Your task to perform on an android device: Open privacy settings Image 0: 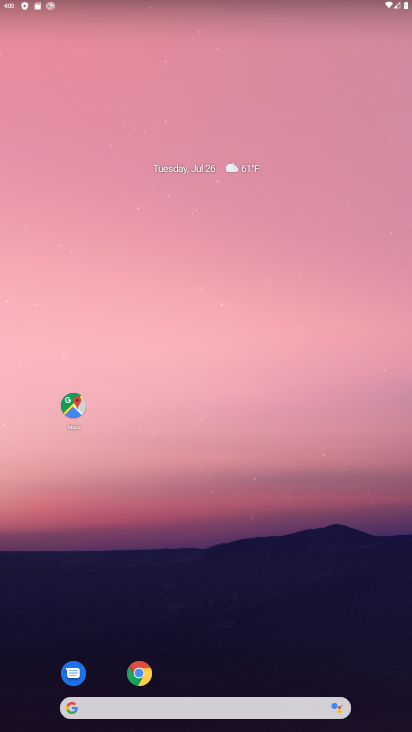
Step 0: press home button
Your task to perform on an android device: Open privacy settings Image 1: 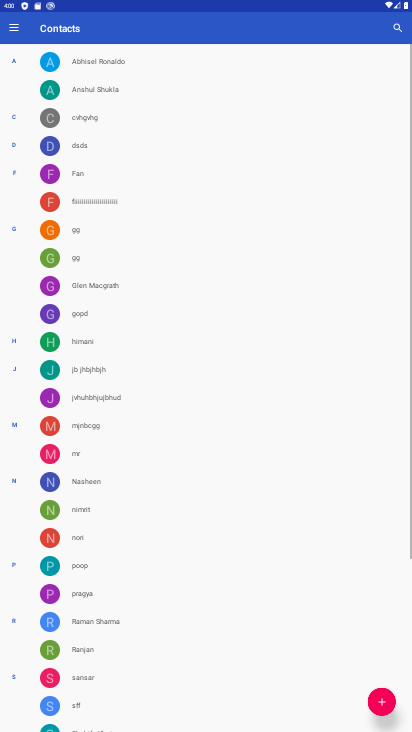
Step 1: click (136, 671)
Your task to perform on an android device: Open privacy settings Image 2: 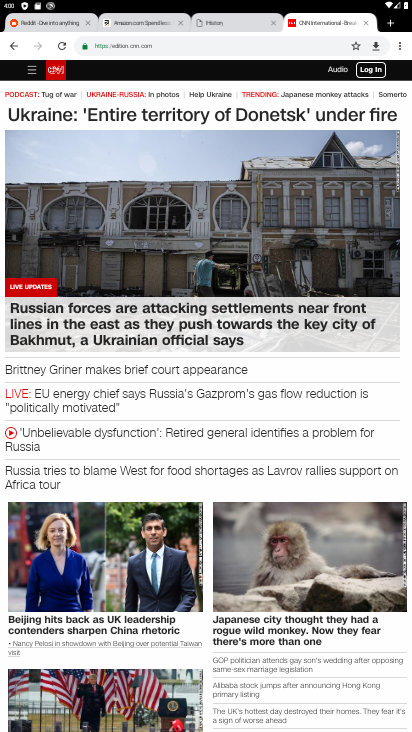
Step 2: press home button
Your task to perform on an android device: Open privacy settings Image 3: 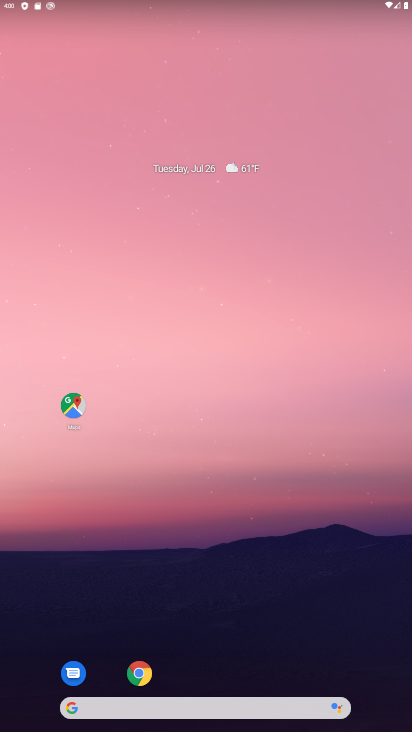
Step 3: drag from (217, 688) to (207, 23)
Your task to perform on an android device: Open privacy settings Image 4: 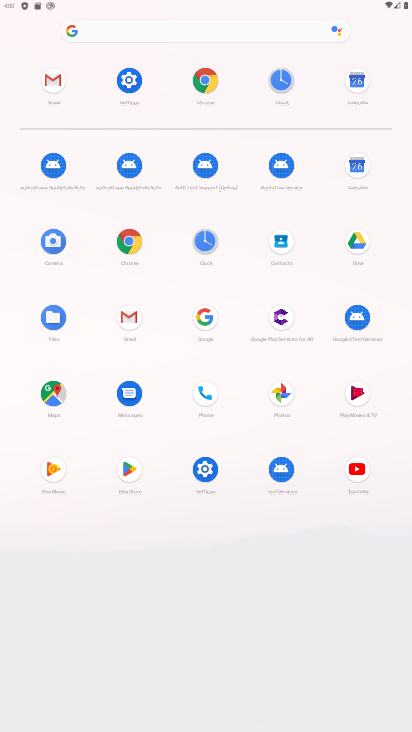
Step 4: click (126, 82)
Your task to perform on an android device: Open privacy settings Image 5: 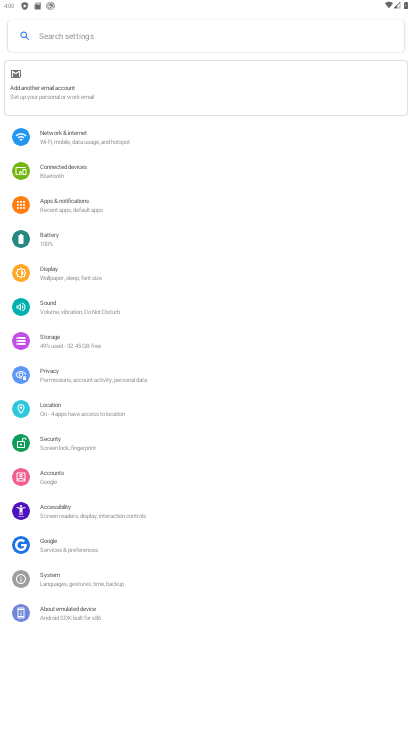
Step 5: click (61, 366)
Your task to perform on an android device: Open privacy settings Image 6: 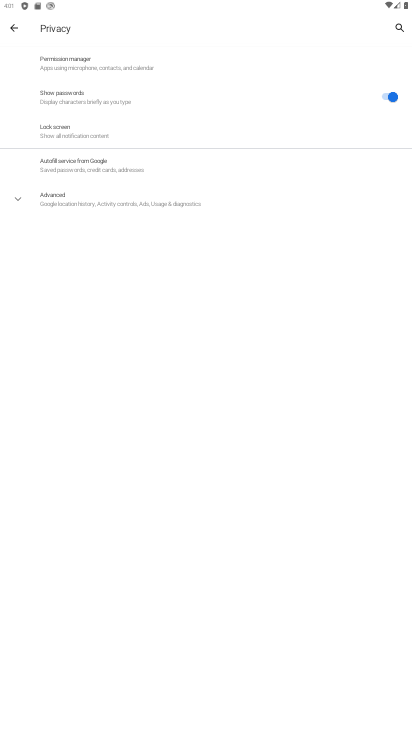
Step 6: click (16, 198)
Your task to perform on an android device: Open privacy settings Image 7: 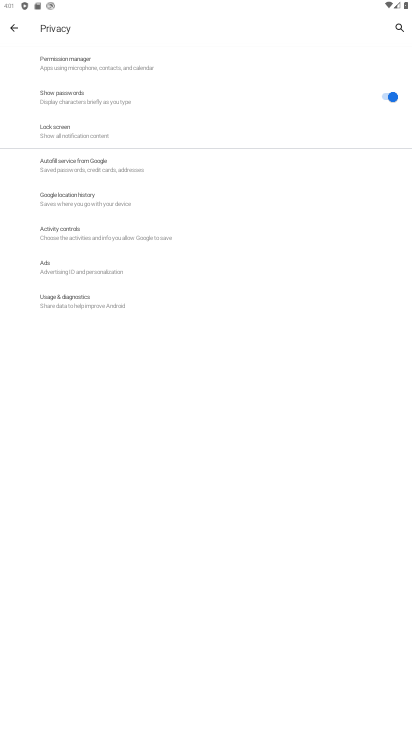
Step 7: task complete